Your task to perform on an android device: Open the Play Movies app and select the watchlist tab. Image 0: 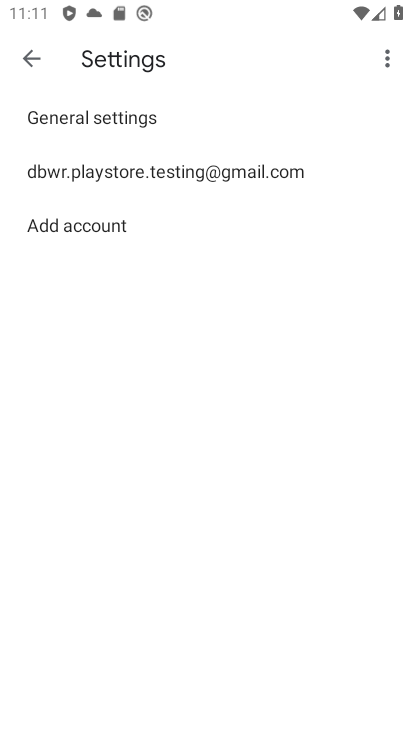
Step 0: press home button
Your task to perform on an android device: Open the Play Movies app and select the watchlist tab. Image 1: 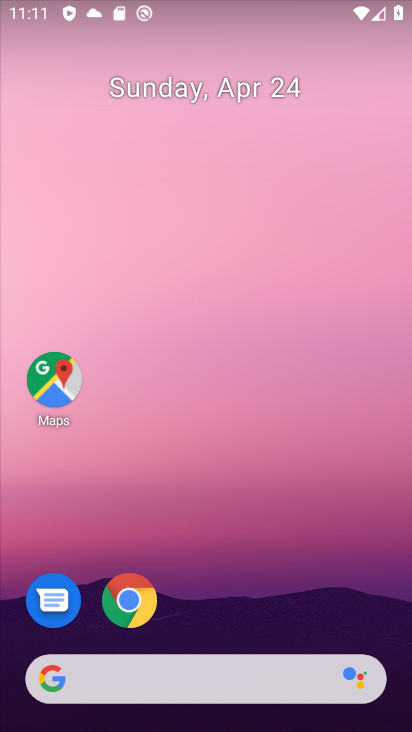
Step 1: drag from (252, 526) to (248, 26)
Your task to perform on an android device: Open the Play Movies app and select the watchlist tab. Image 2: 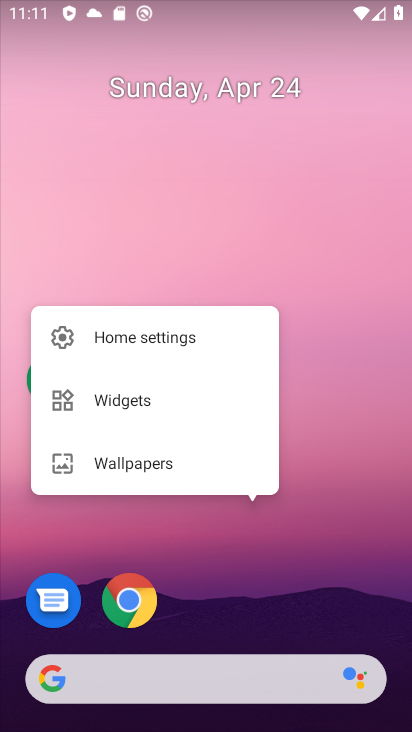
Step 2: click (220, 542)
Your task to perform on an android device: Open the Play Movies app and select the watchlist tab. Image 3: 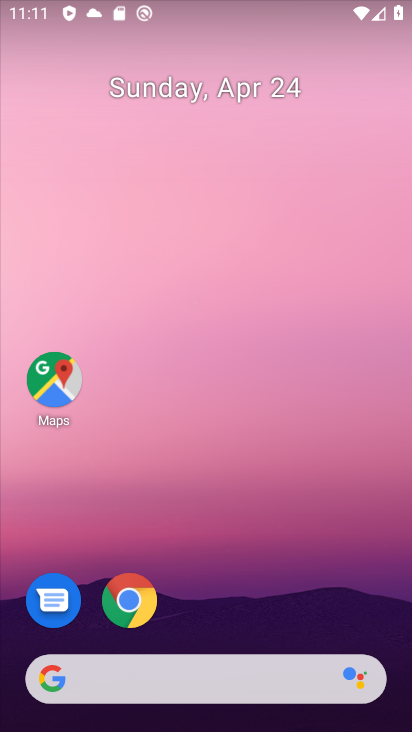
Step 3: drag from (220, 542) to (248, 34)
Your task to perform on an android device: Open the Play Movies app and select the watchlist tab. Image 4: 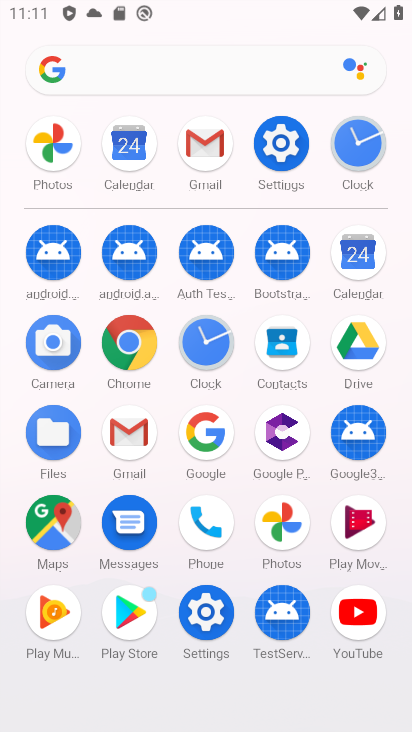
Step 4: click (351, 527)
Your task to perform on an android device: Open the Play Movies app and select the watchlist tab. Image 5: 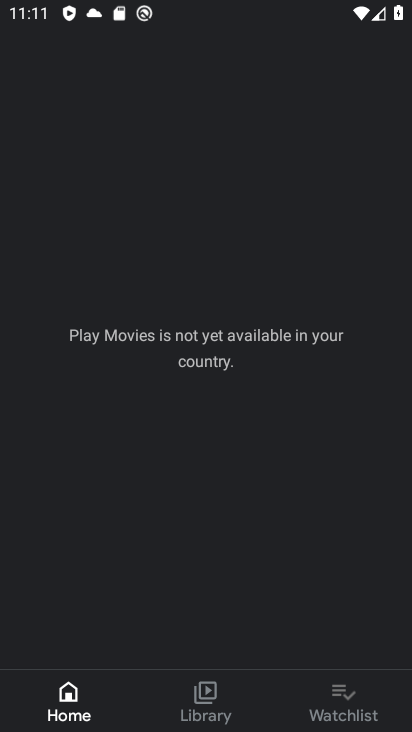
Step 5: click (333, 695)
Your task to perform on an android device: Open the Play Movies app and select the watchlist tab. Image 6: 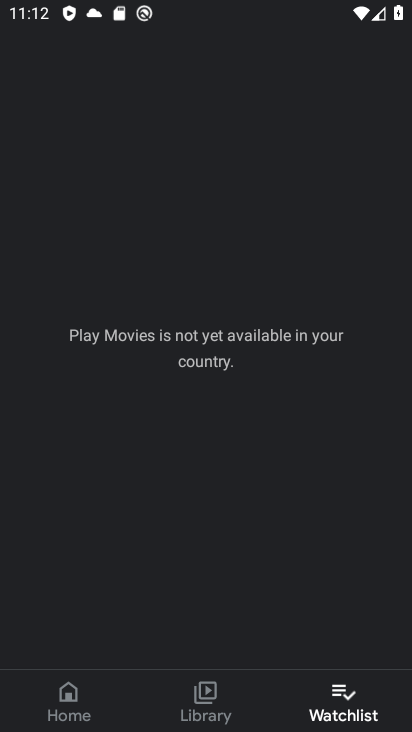
Step 6: task complete